Your task to perform on an android device: turn on data saver in the chrome app Image 0: 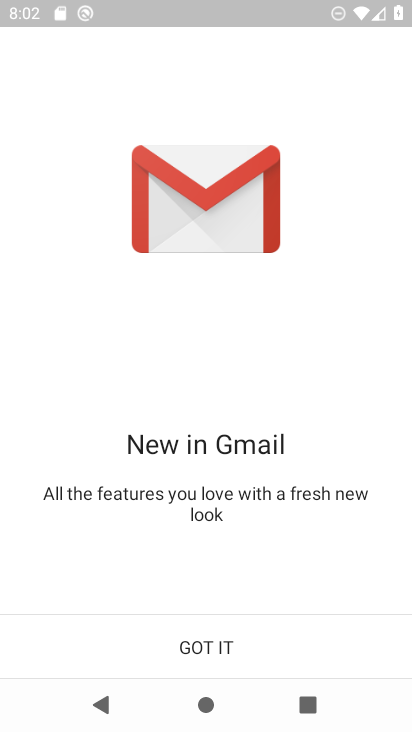
Step 0: press home button
Your task to perform on an android device: turn on data saver in the chrome app Image 1: 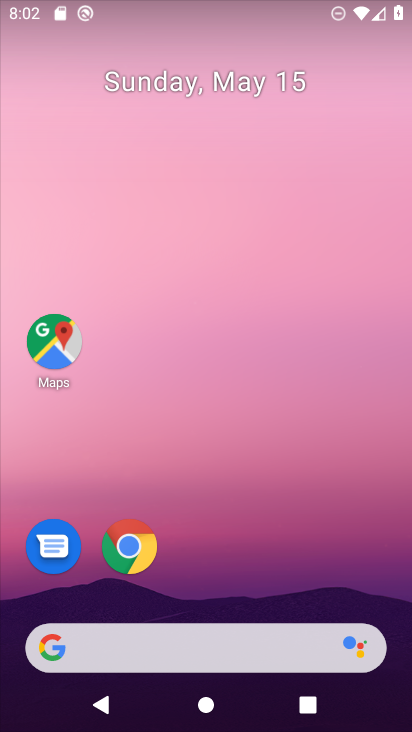
Step 1: click (128, 529)
Your task to perform on an android device: turn on data saver in the chrome app Image 2: 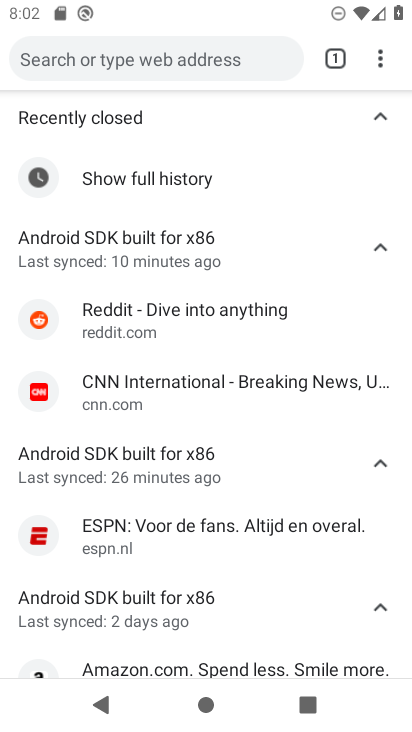
Step 2: click (380, 55)
Your task to perform on an android device: turn on data saver in the chrome app Image 3: 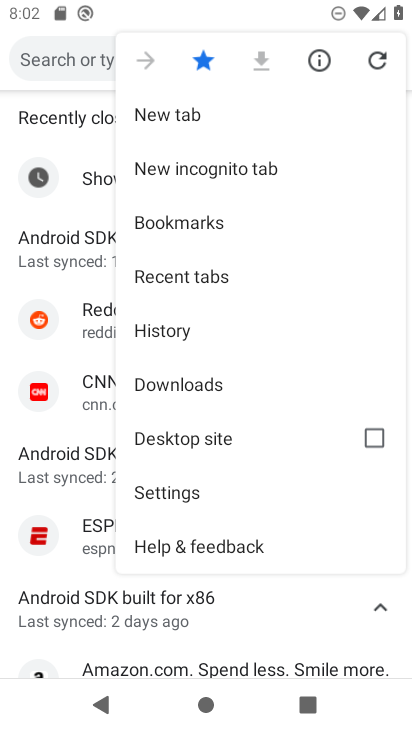
Step 3: click (173, 493)
Your task to perform on an android device: turn on data saver in the chrome app Image 4: 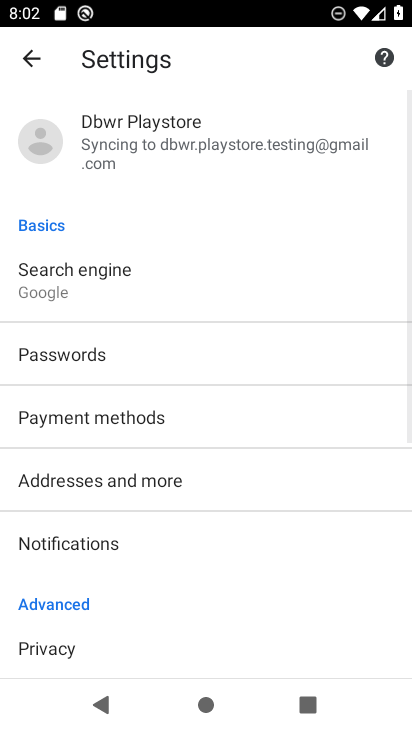
Step 4: drag from (189, 566) to (217, 101)
Your task to perform on an android device: turn on data saver in the chrome app Image 5: 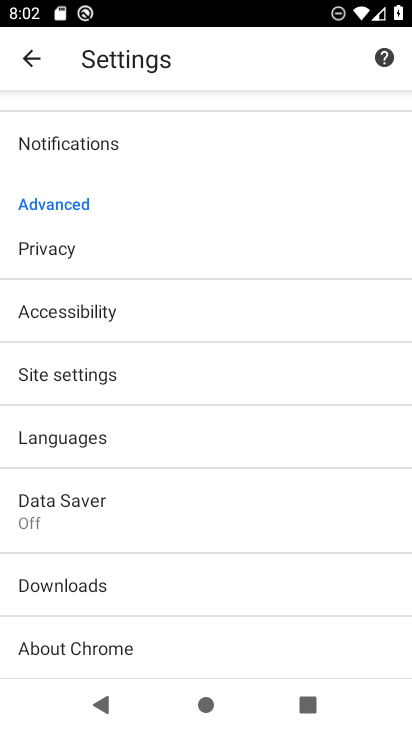
Step 5: click (165, 498)
Your task to perform on an android device: turn on data saver in the chrome app Image 6: 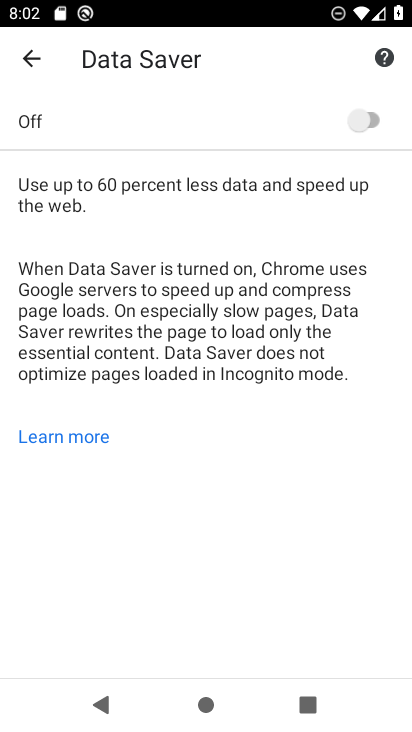
Step 6: click (368, 106)
Your task to perform on an android device: turn on data saver in the chrome app Image 7: 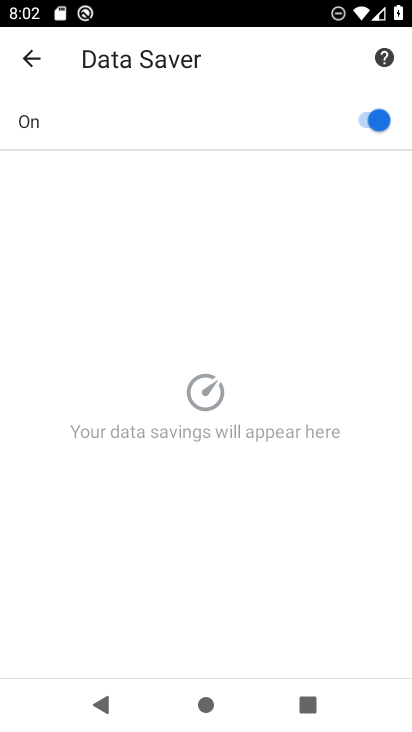
Step 7: task complete